Your task to perform on an android device: Open display settings Image 0: 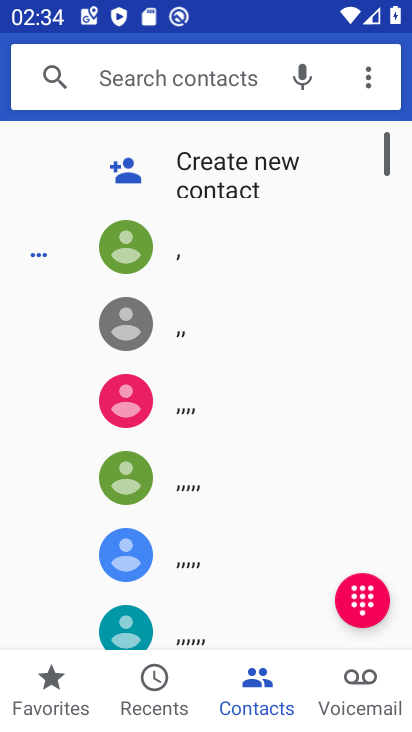
Step 0: press home button
Your task to perform on an android device: Open display settings Image 1: 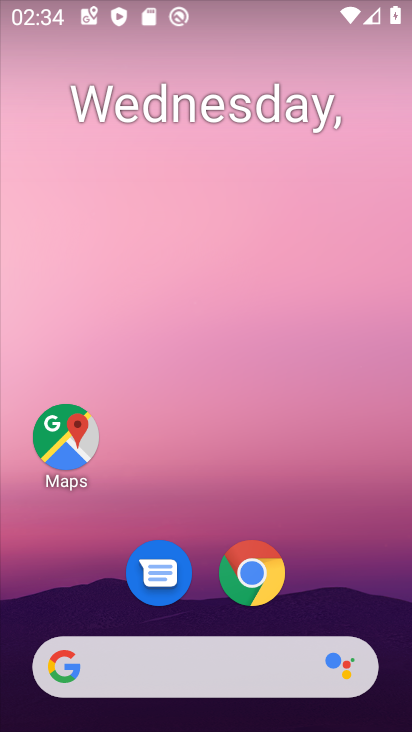
Step 1: drag from (348, 598) to (277, 21)
Your task to perform on an android device: Open display settings Image 2: 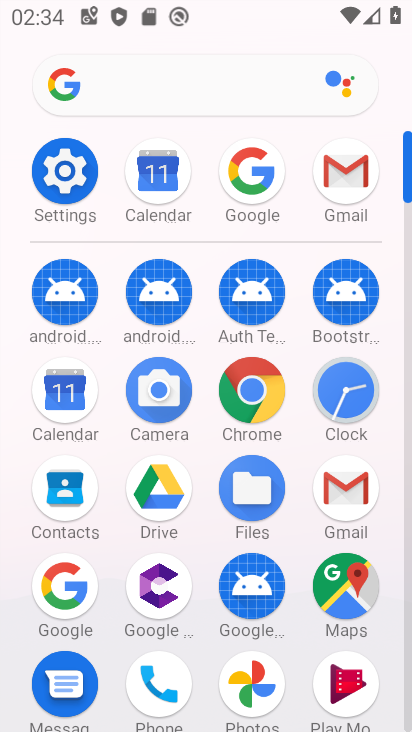
Step 2: click (62, 173)
Your task to perform on an android device: Open display settings Image 3: 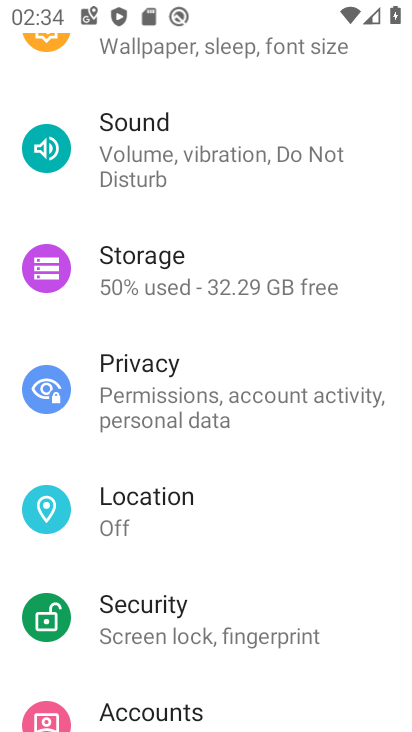
Step 3: drag from (219, 431) to (242, 529)
Your task to perform on an android device: Open display settings Image 4: 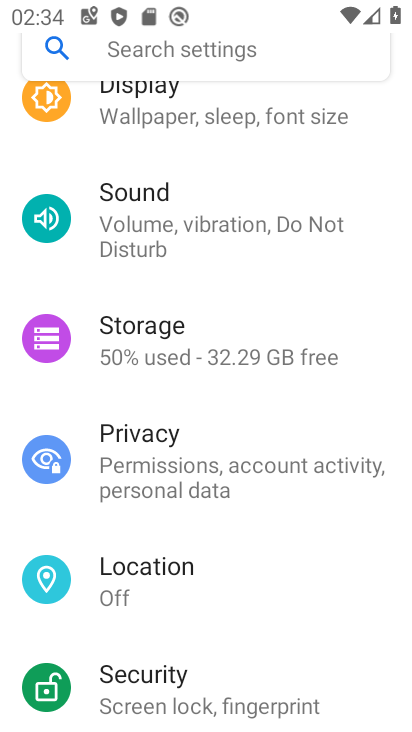
Step 4: drag from (241, 269) to (298, 474)
Your task to perform on an android device: Open display settings Image 5: 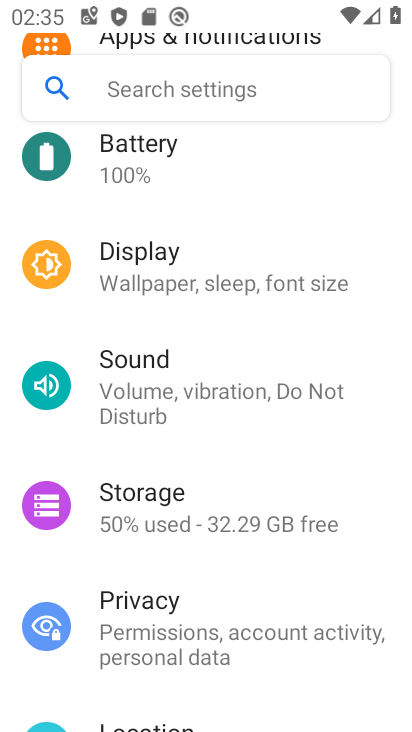
Step 5: click (152, 254)
Your task to perform on an android device: Open display settings Image 6: 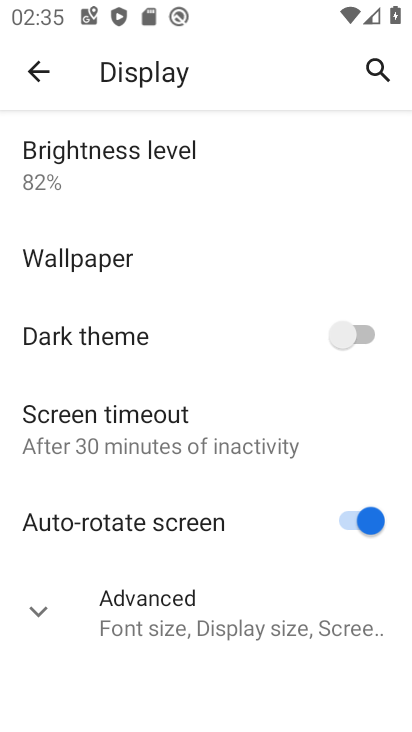
Step 6: task complete